Your task to perform on an android device: uninstall "Cash App" Image 0: 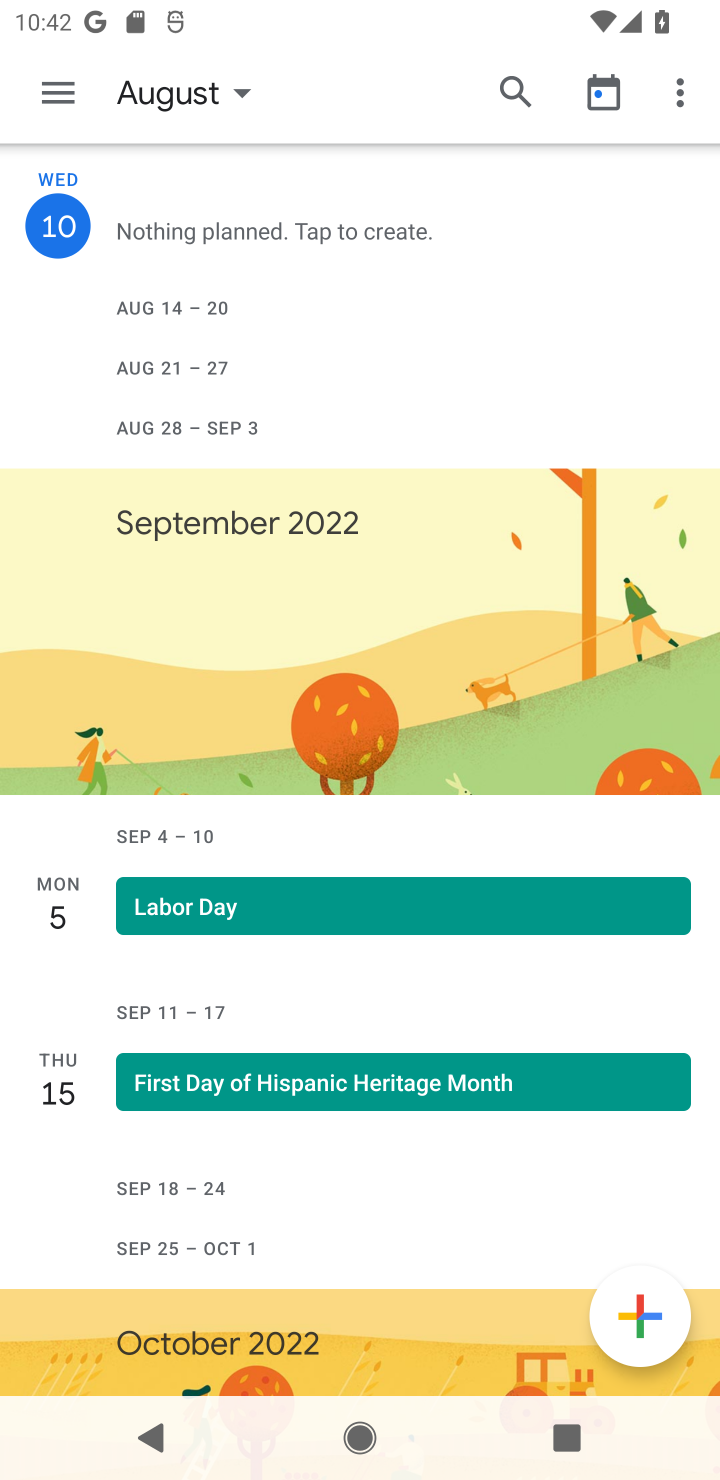
Step 0: press back button
Your task to perform on an android device: uninstall "Cash App" Image 1: 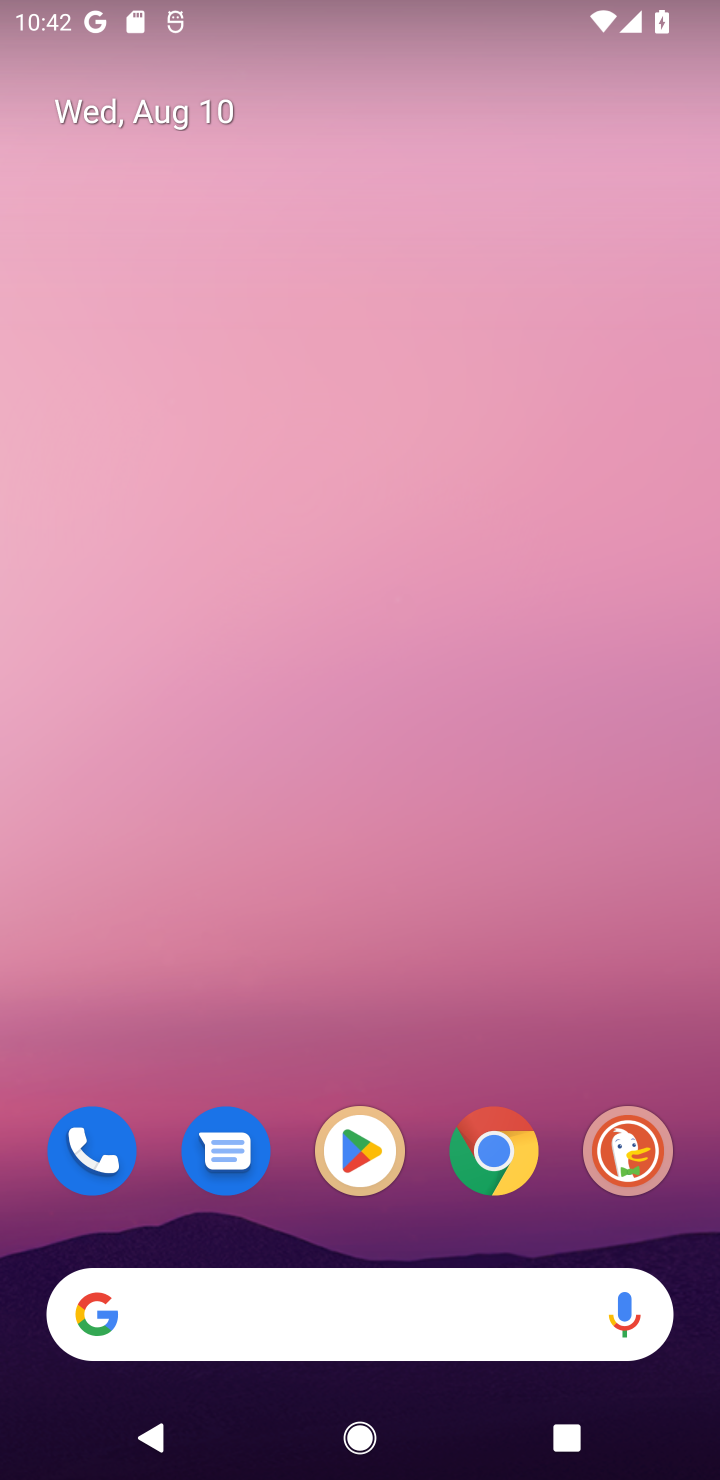
Step 1: click (357, 1145)
Your task to perform on an android device: uninstall "Cash App" Image 2: 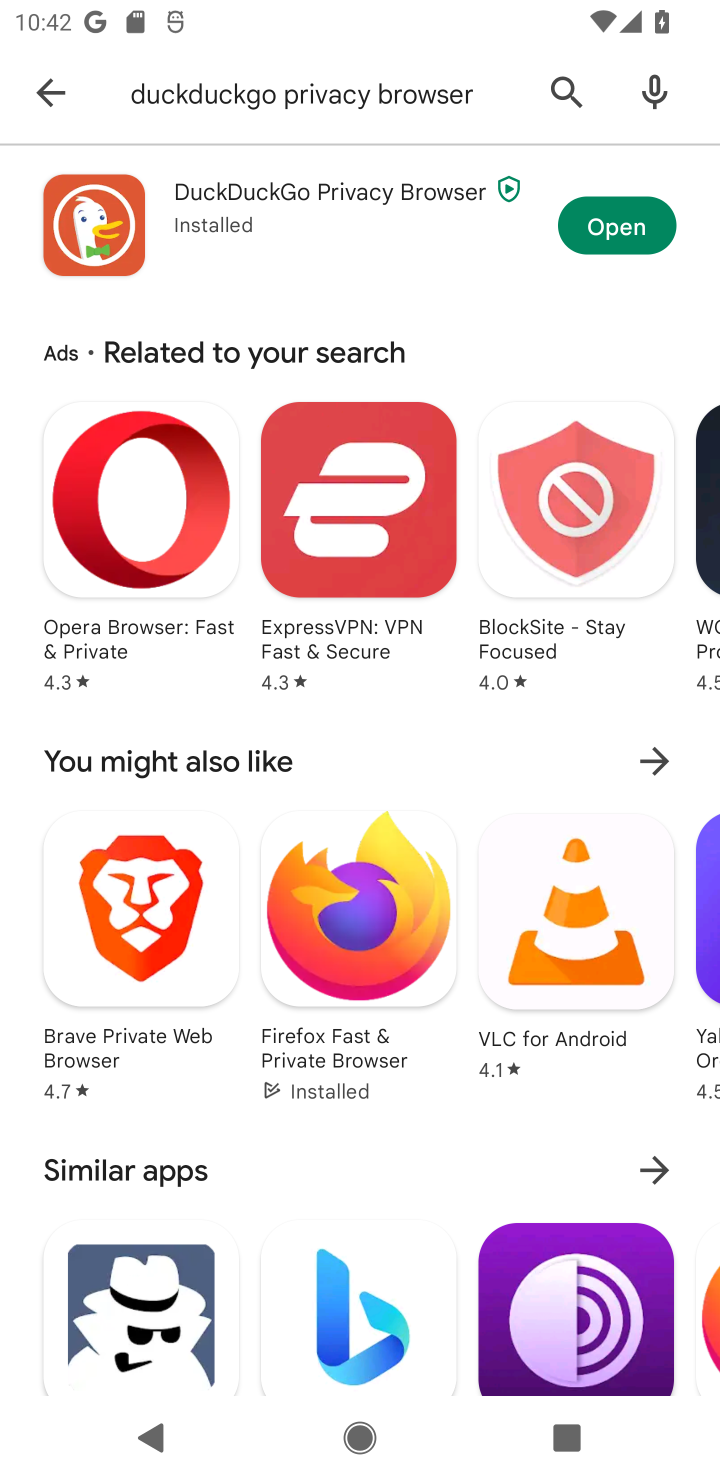
Step 2: click (566, 90)
Your task to perform on an android device: uninstall "Cash App" Image 3: 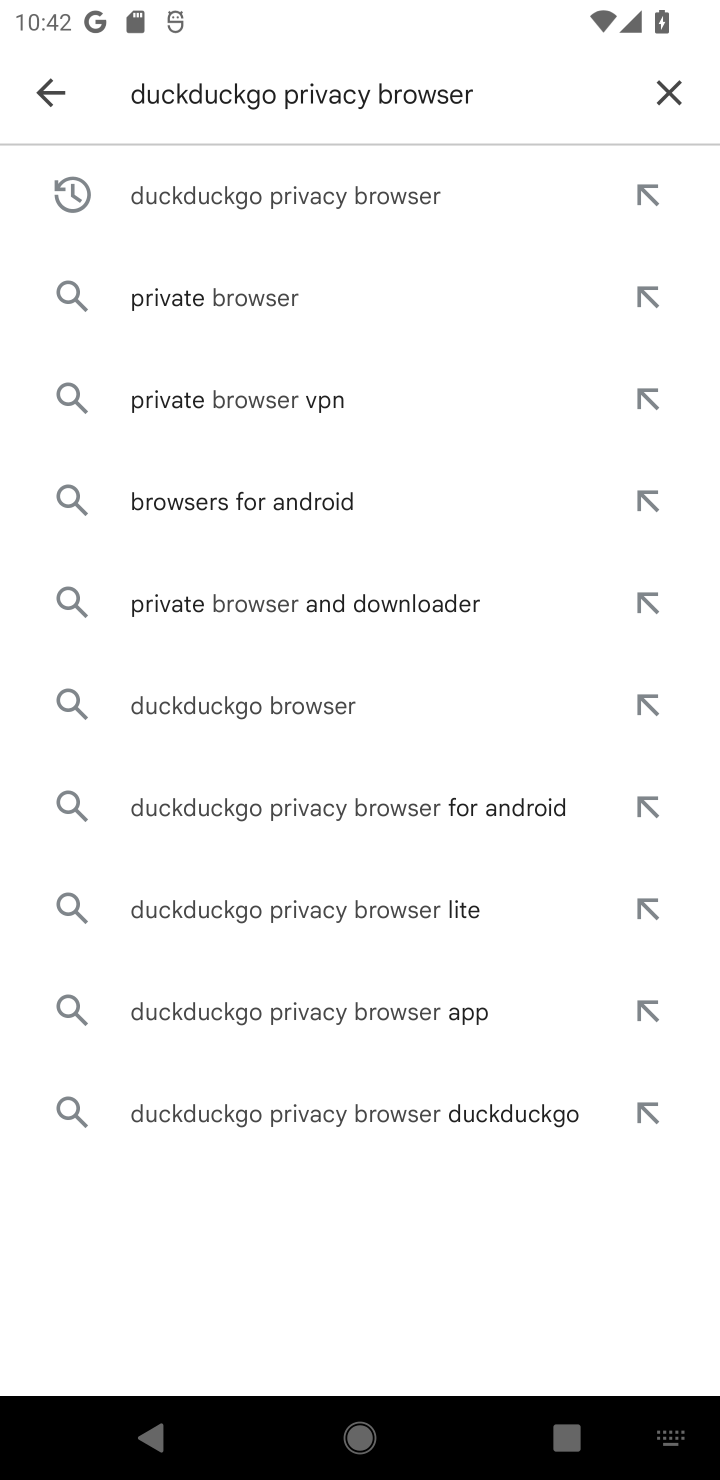
Step 3: click (657, 96)
Your task to perform on an android device: uninstall "Cash App" Image 4: 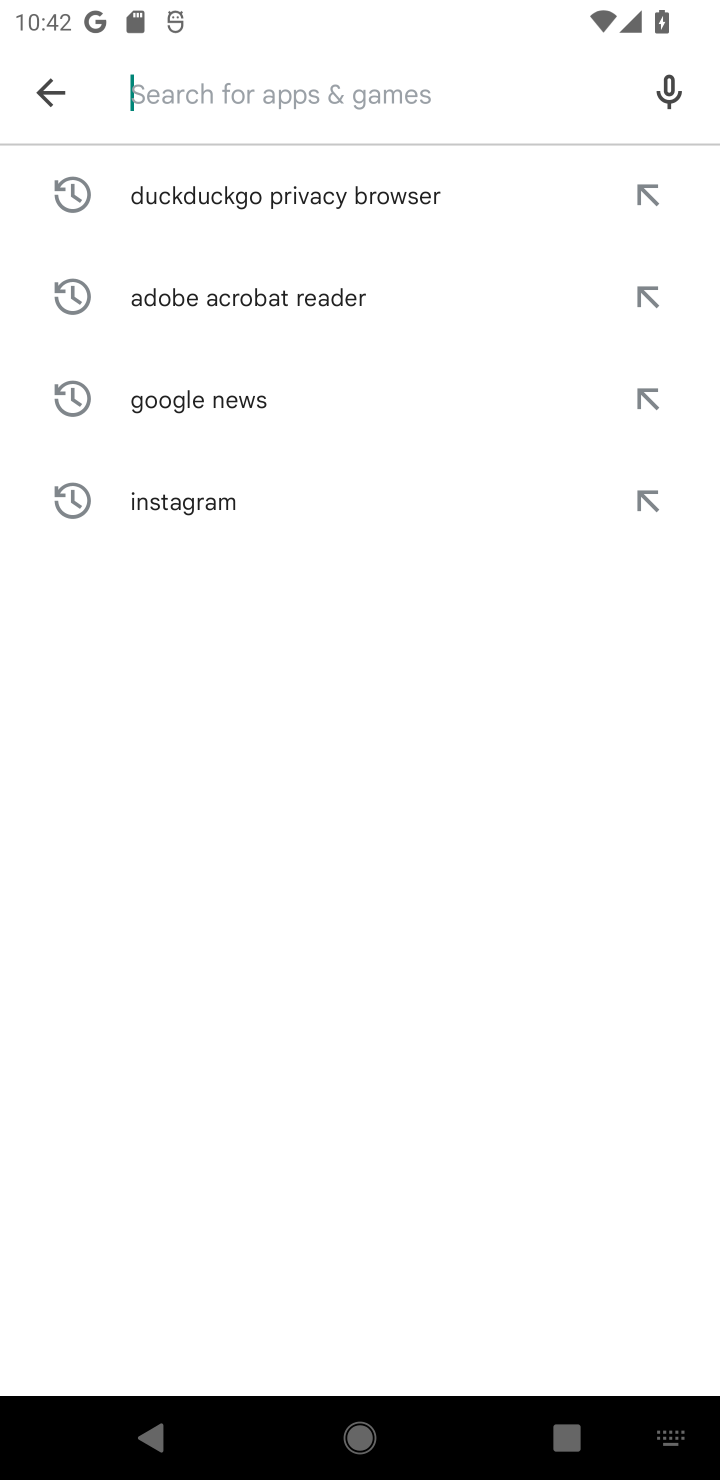
Step 4: click (258, 96)
Your task to perform on an android device: uninstall "Cash App" Image 5: 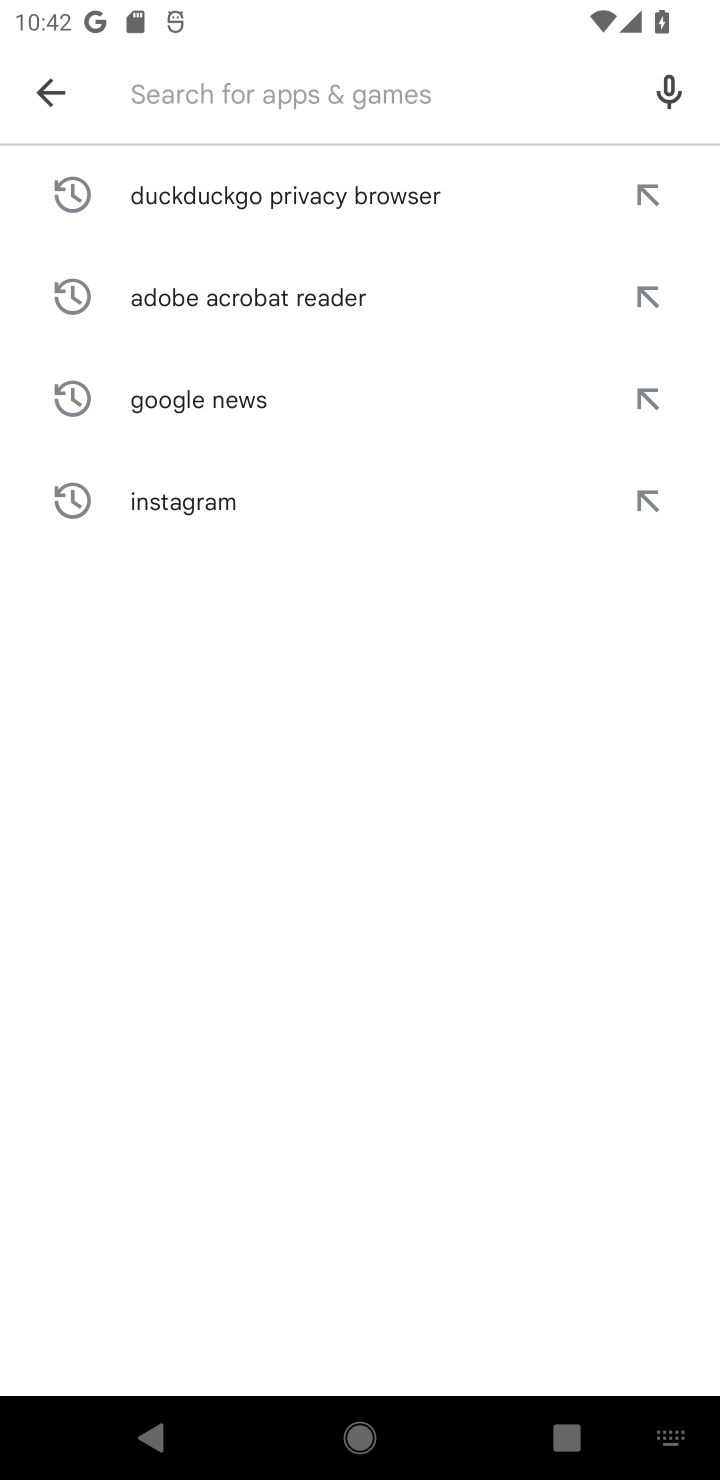
Step 5: click (317, 93)
Your task to perform on an android device: uninstall "Cash App" Image 6: 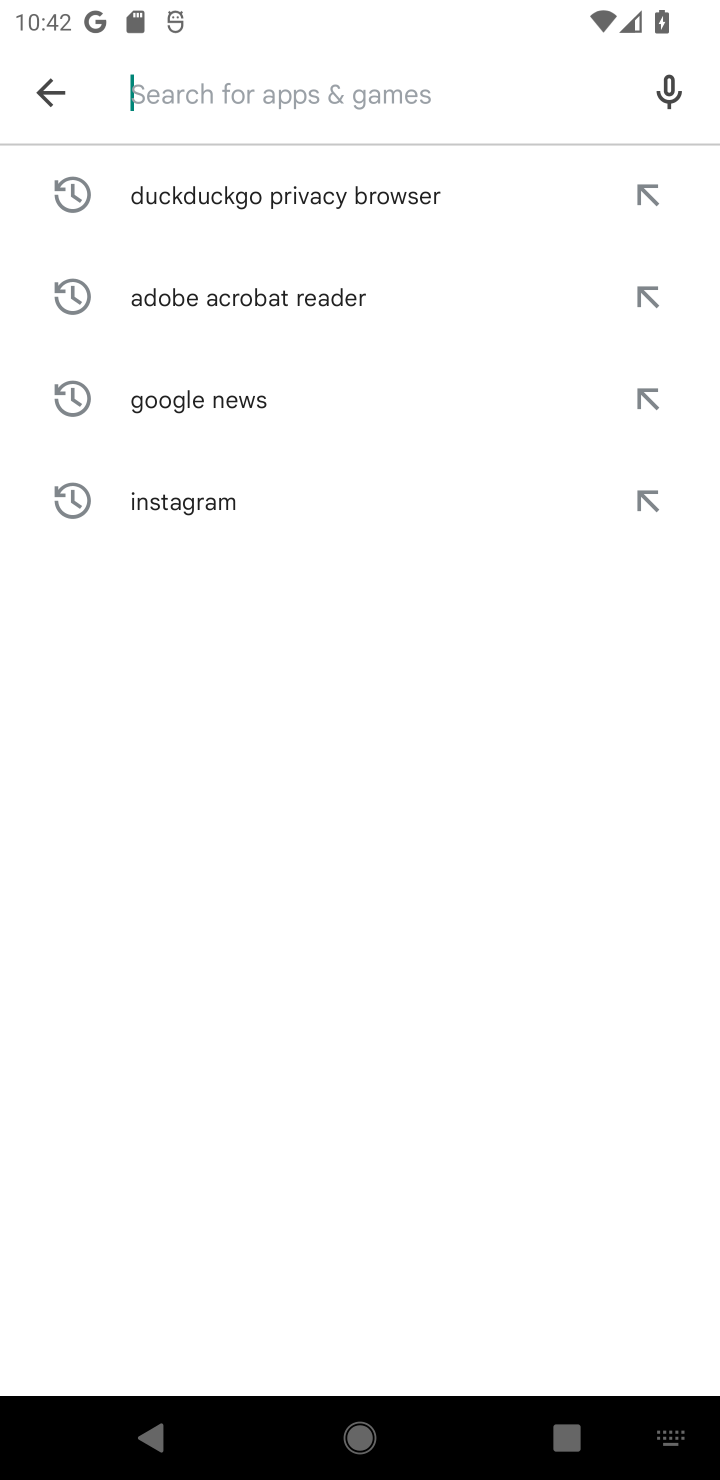
Step 6: type "cash  app"
Your task to perform on an android device: uninstall "Cash App" Image 7: 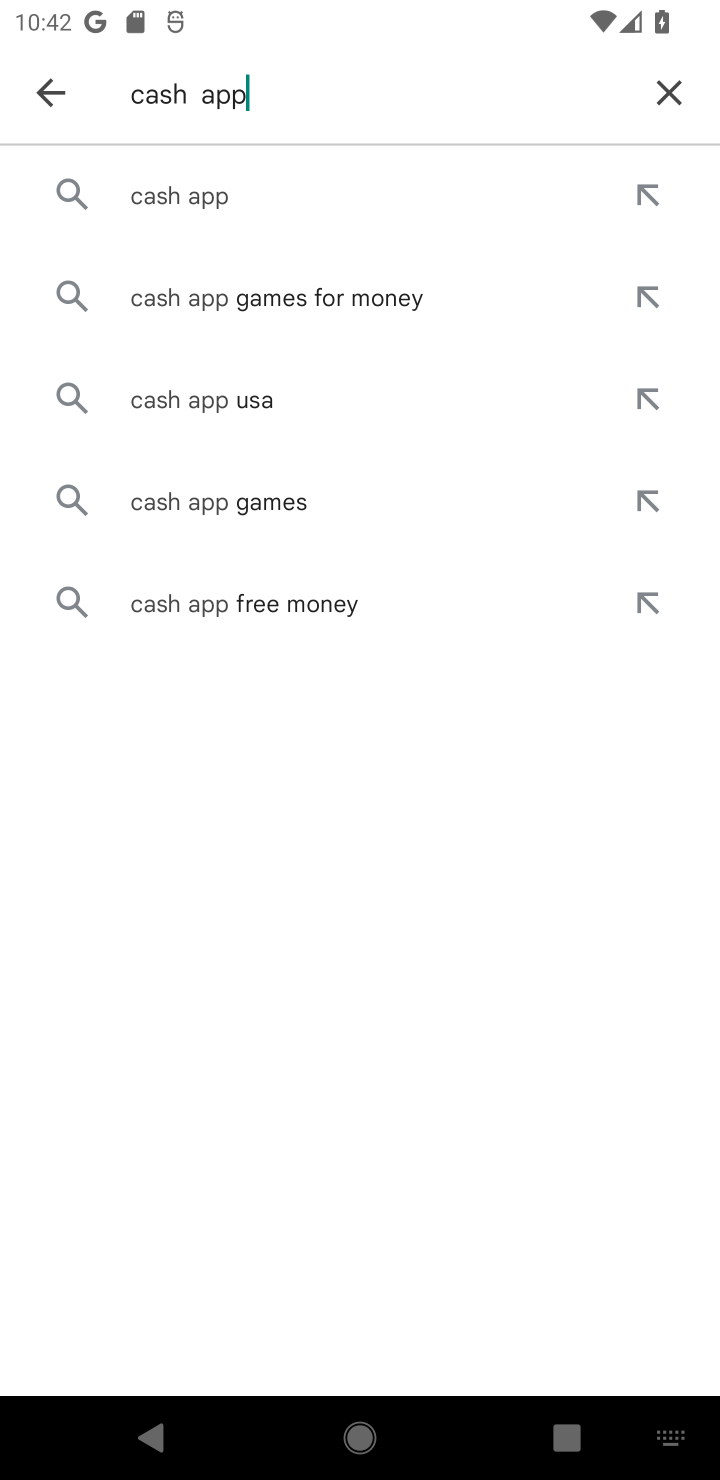
Step 7: click (219, 188)
Your task to perform on an android device: uninstall "Cash App" Image 8: 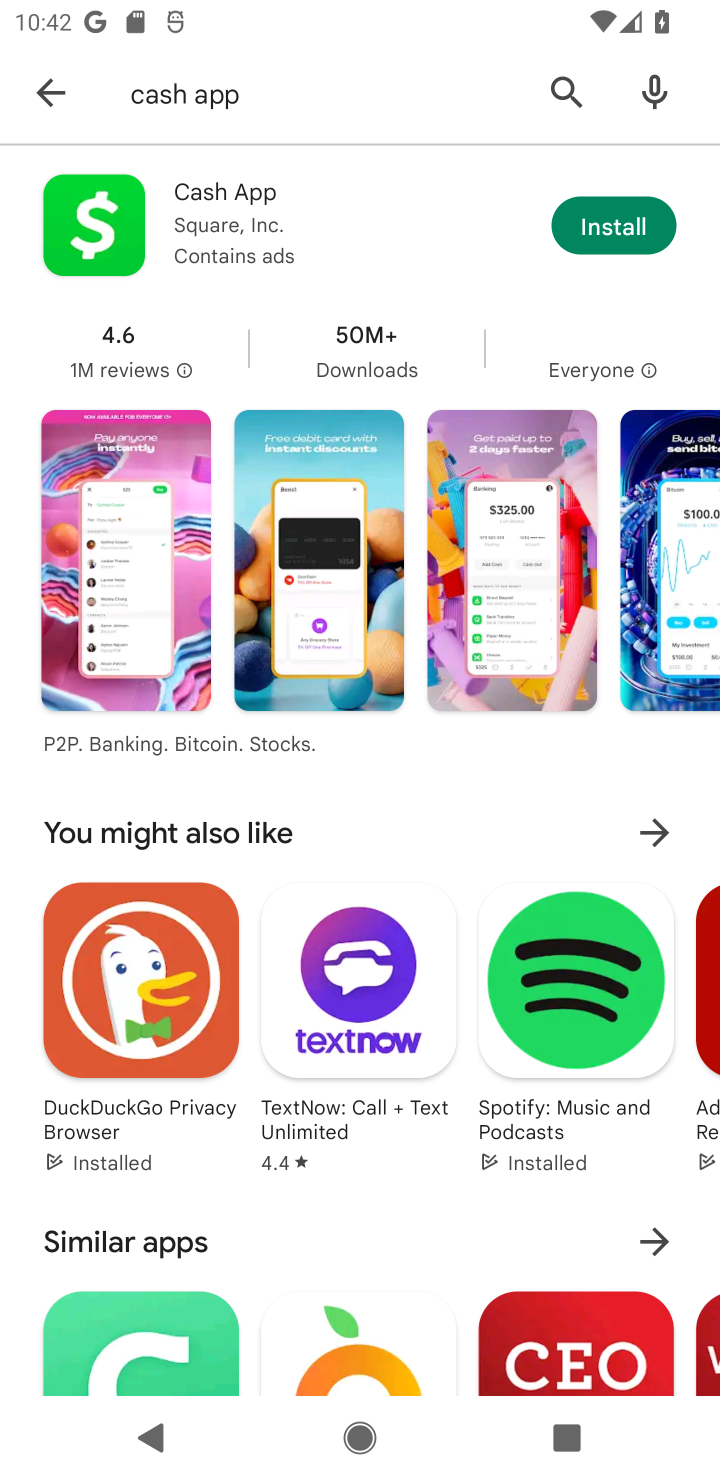
Step 8: click (299, 237)
Your task to perform on an android device: uninstall "Cash App" Image 9: 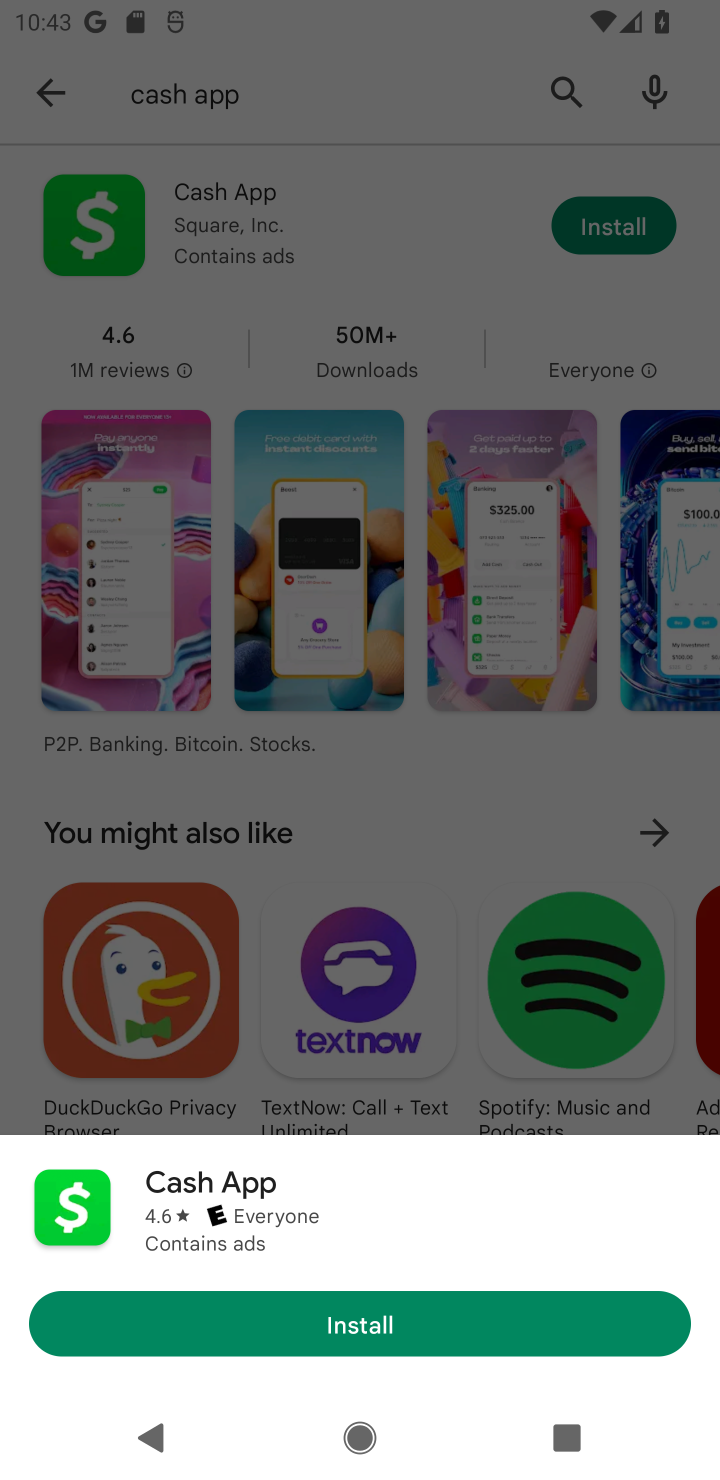
Step 9: task complete